Your task to perform on an android device: Open calendar and show me the second week of next month Image 0: 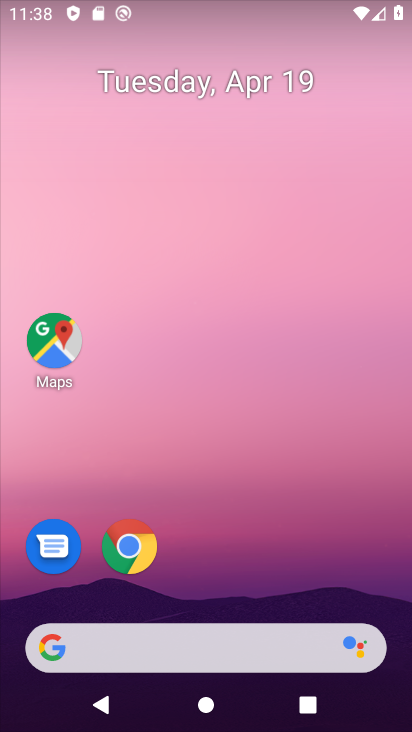
Step 0: drag from (254, 691) to (254, 225)
Your task to perform on an android device: Open calendar and show me the second week of next month Image 1: 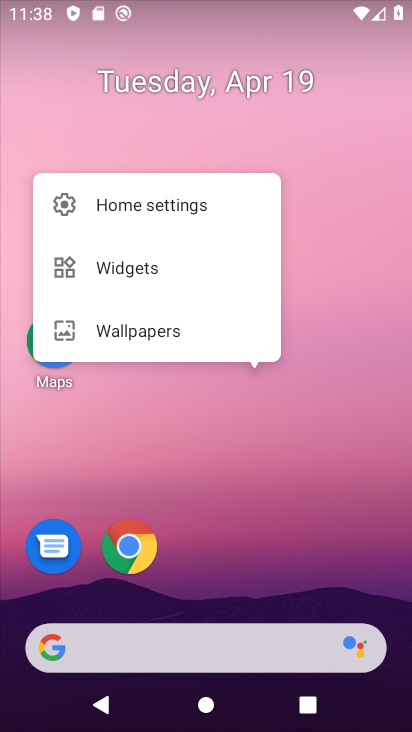
Step 1: drag from (262, 571) to (335, 137)
Your task to perform on an android device: Open calendar and show me the second week of next month Image 2: 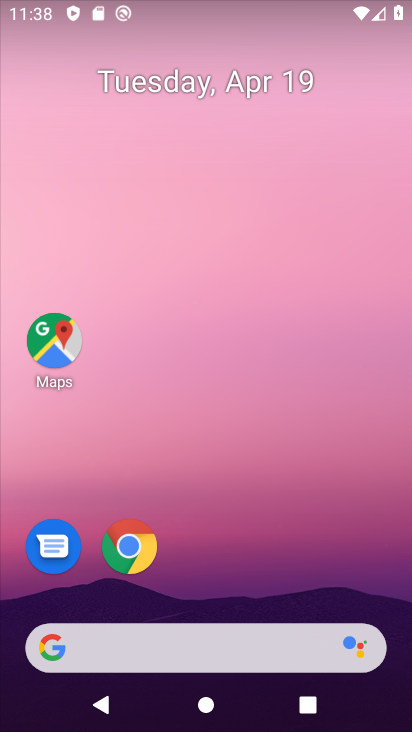
Step 2: drag from (246, 727) to (278, 179)
Your task to perform on an android device: Open calendar and show me the second week of next month Image 3: 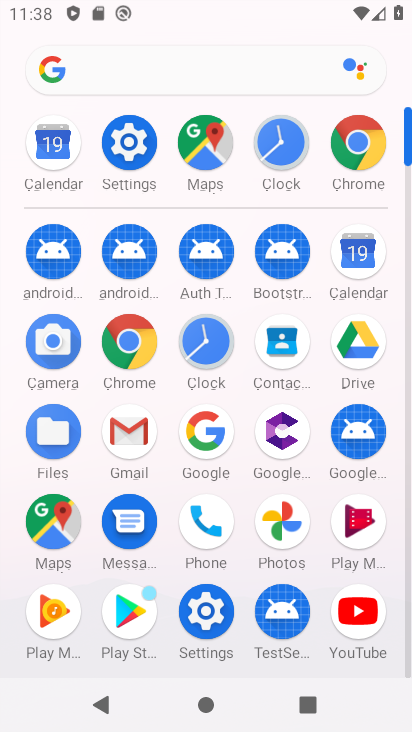
Step 3: click (374, 247)
Your task to perform on an android device: Open calendar and show me the second week of next month Image 4: 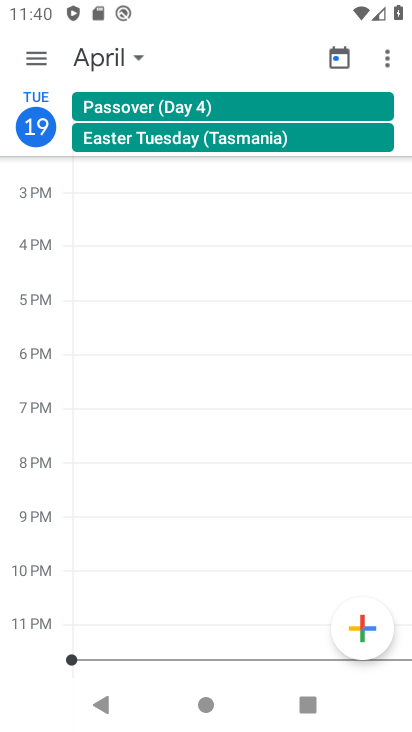
Step 4: click (112, 62)
Your task to perform on an android device: Open calendar and show me the second week of next month Image 5: 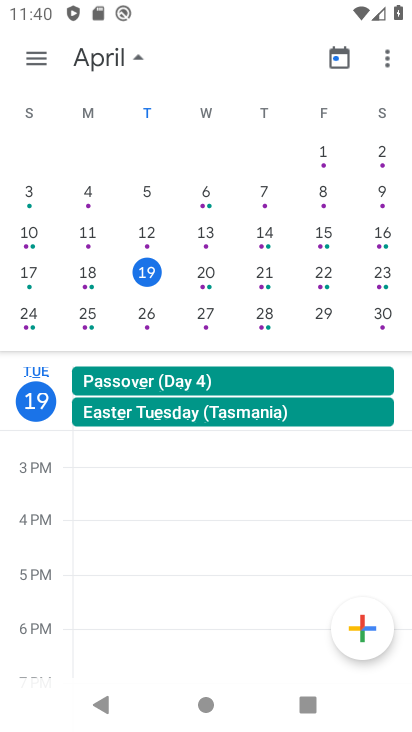
Step 5: drag from (193, 238) to (16, 333)
Your task to perform on an android device: Open calendar and show me the second week of next month Image 6: 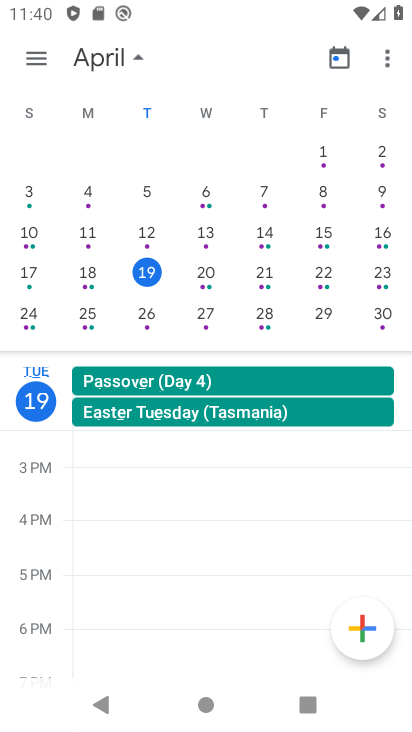
Step 6: drag from (351, 176) to (2, 204)
Your task to perform on an android device: Open calendar and show me the second week of next month Image 7: 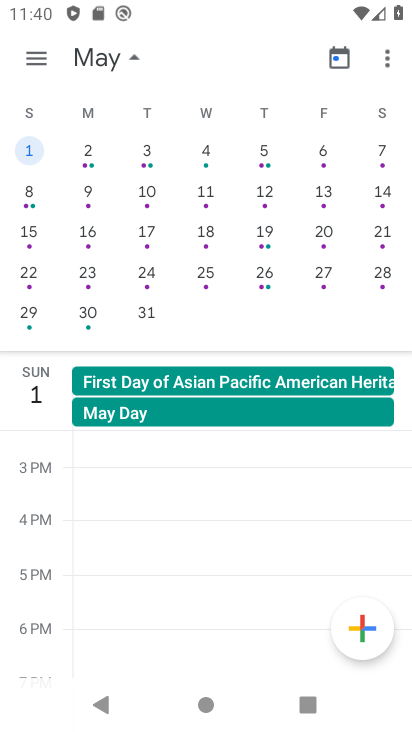
Step 7: click (18, 196)
Your task to perform on an android device: Open calendar and show me the second week of next month Image 8: 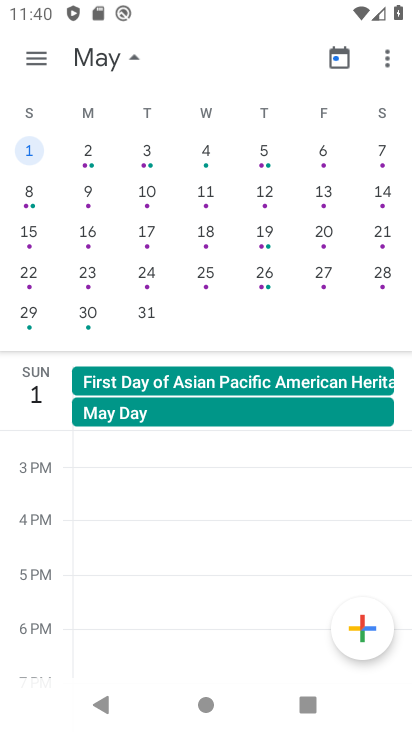
Step 8: click (34, 198)
Your task to perform on an android device: Open calendar and show me the second week of next month Image 9: 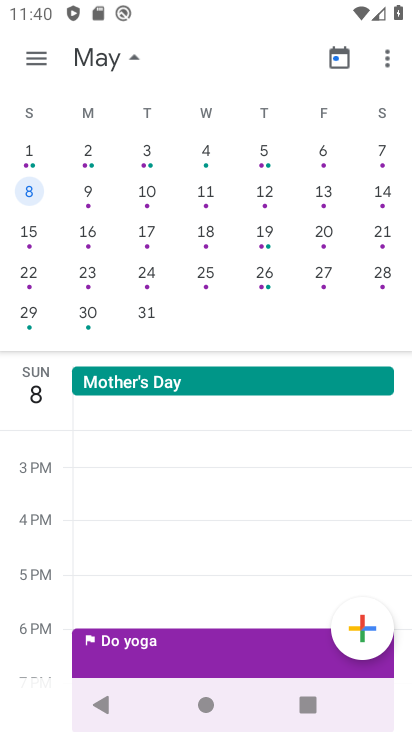
Step 9: task complete